Your task to perform on an android device: Go to Google maps Image 0: 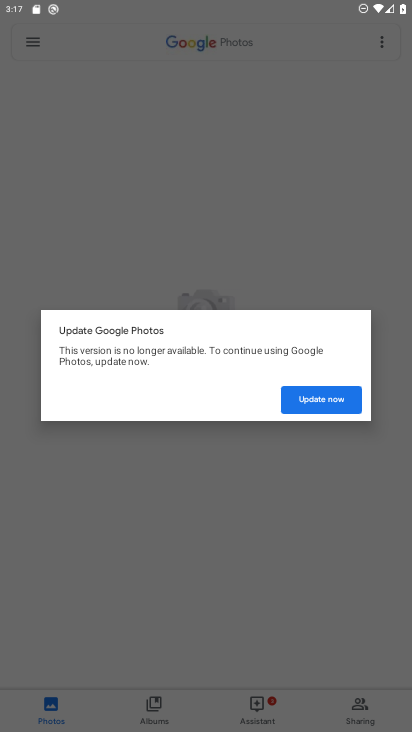
Step 0: press home button
Your task to perform on an android device: Go to Google maps Image 1: 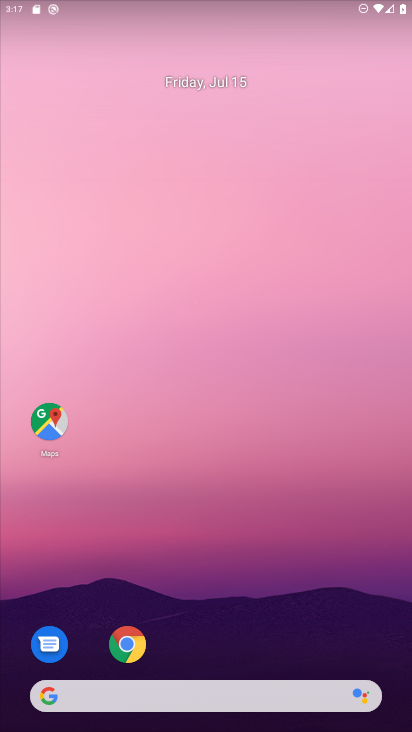
Step 1: click (51, 430)
Your task to perform on an android device: Go to Google maps Image 2: 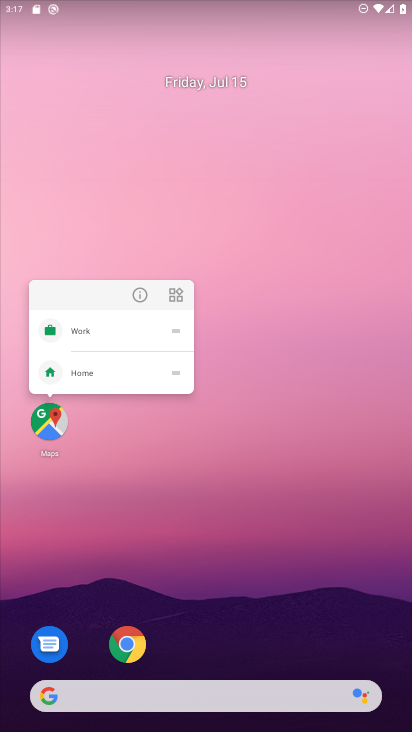
Step 2: click (65, 417)
Your task to perform on an android device: Go to Google maps Image 3: 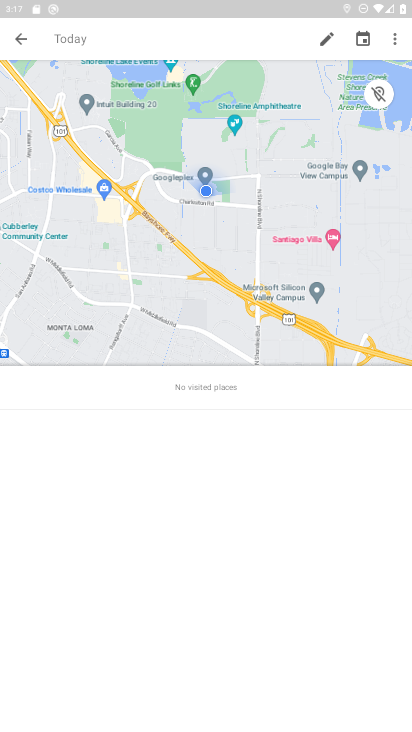
Step 3: task complete